Your task to perform on an android device: Search for the new Air Jordan 13 on Nike.com Image 0: 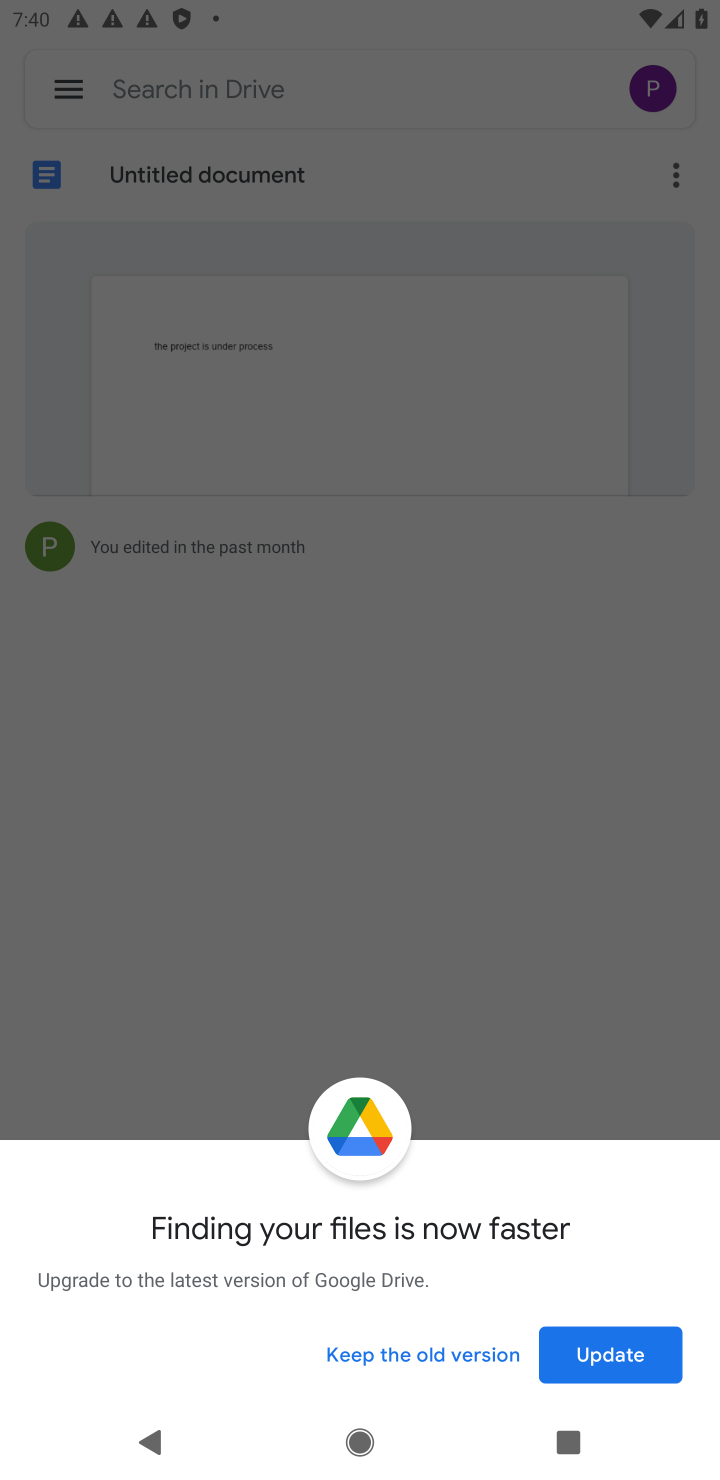
Step 0: press home button
Your task to perform on an android device: Search for the new Air Jordan 13 on Nike.com Image 1: 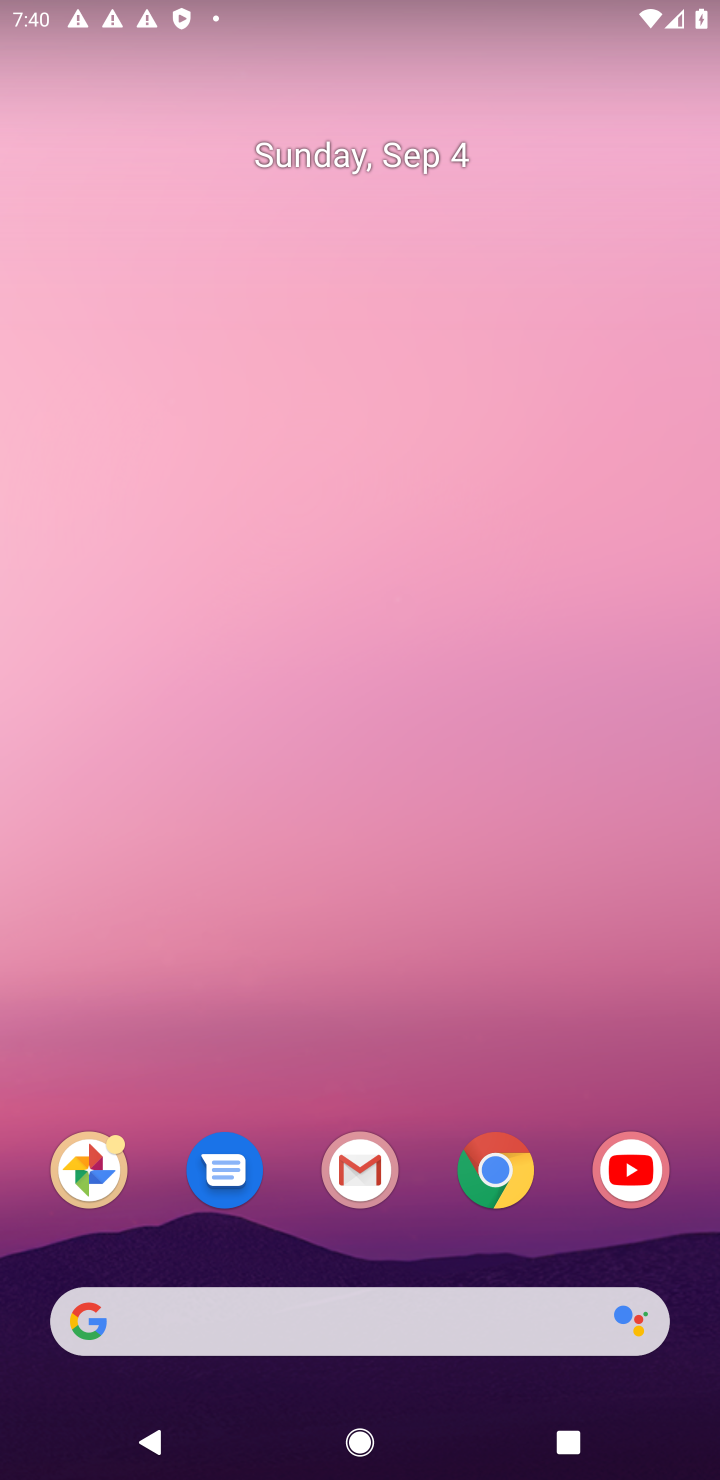
Step 1: click (499, 1156)
Your task to perform on an android device: Search for the new Air Jordan 13 on Nike.com Image 2: 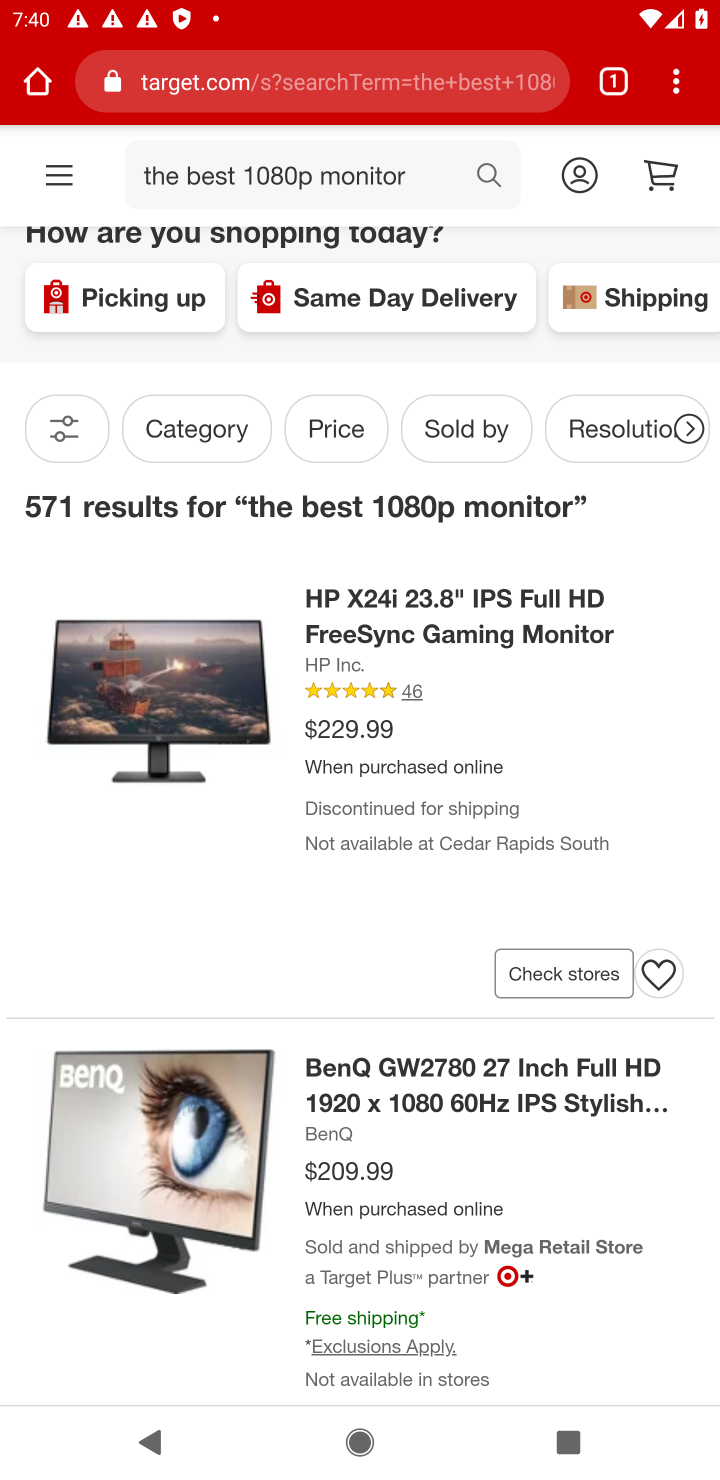
Step 2: click (308, 81)
Your task to perform on an android device: Search for the new Air Jordan 13 on Nike.com Image 3: 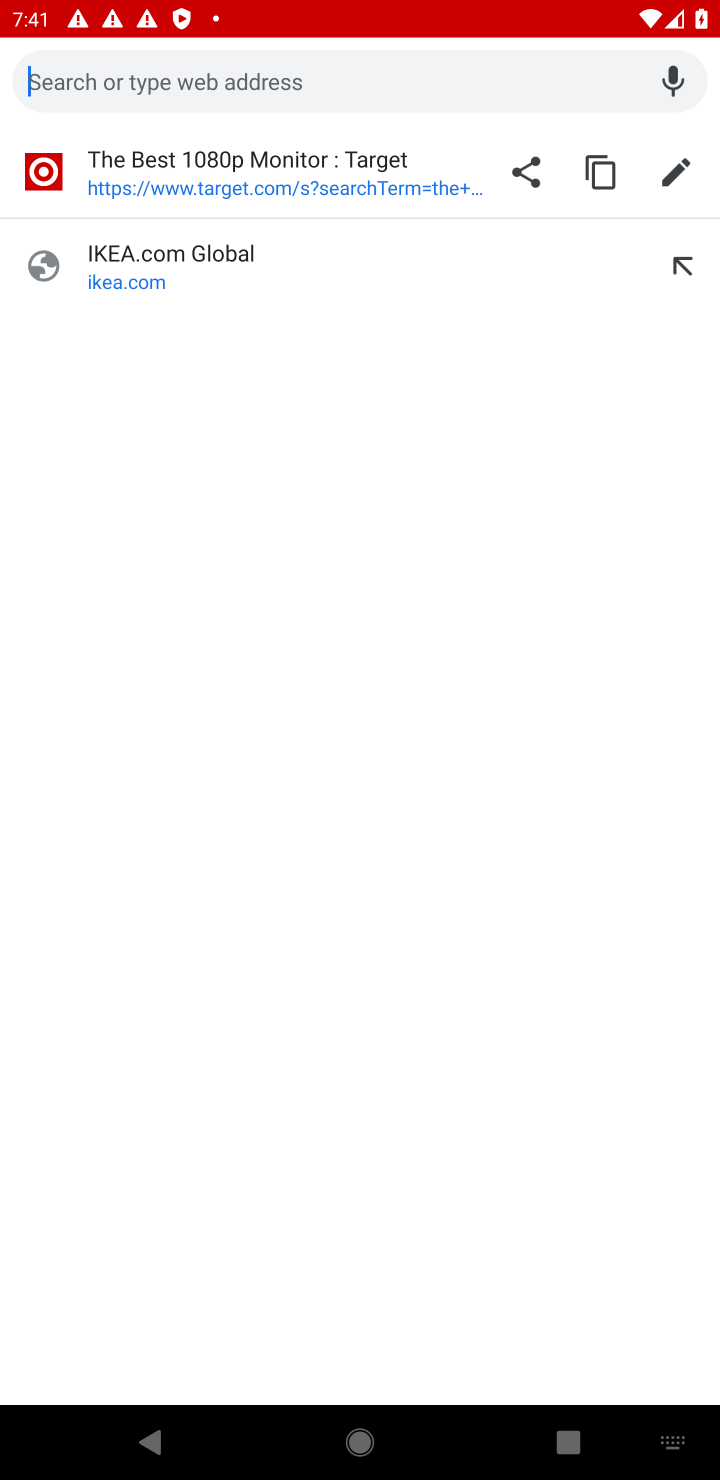
Step 3: type "Nike.com"
Your task to perform on an android device: Search for the new Air Jordan 13 on Nike.com Image 4: 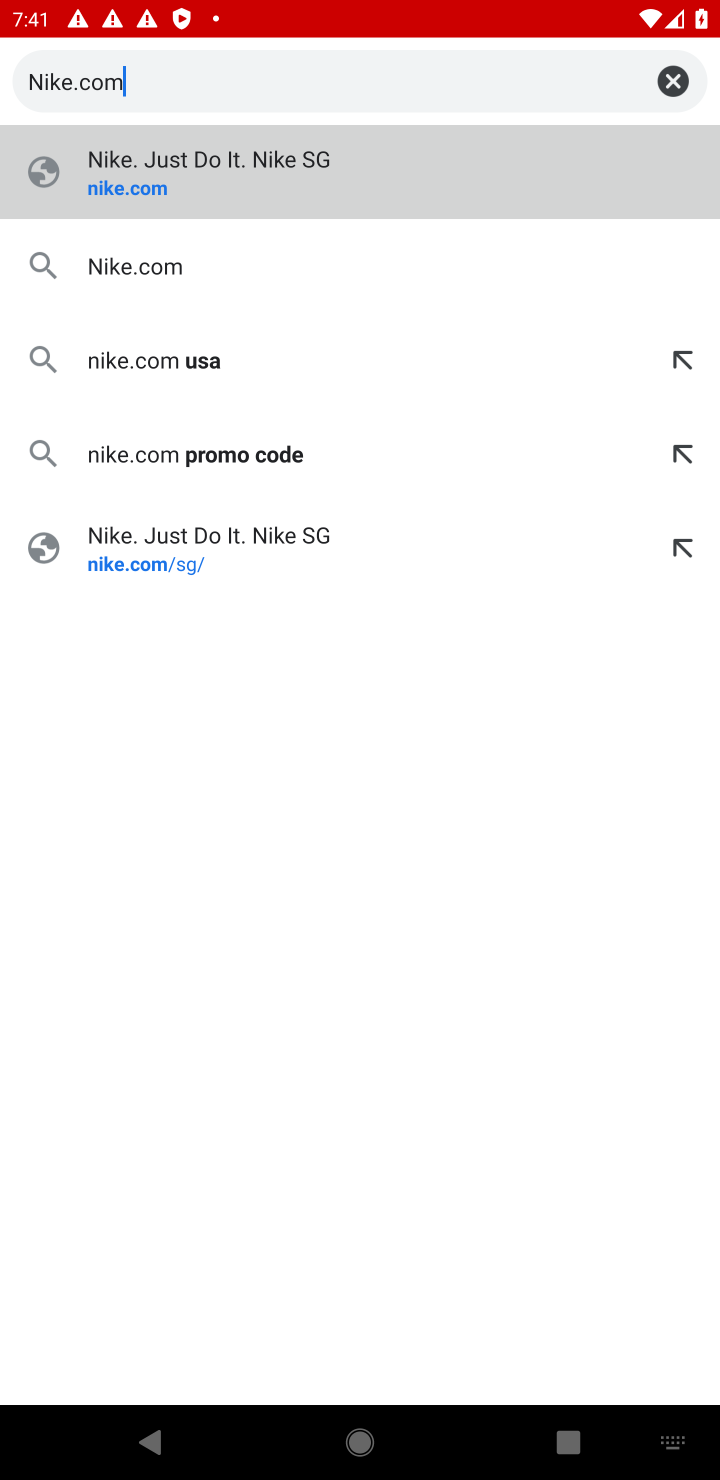
Step 4: click (140, 269)
Your task to perform on an android device: Search for the new Air Jordan 13 on Nike.com Image 5: 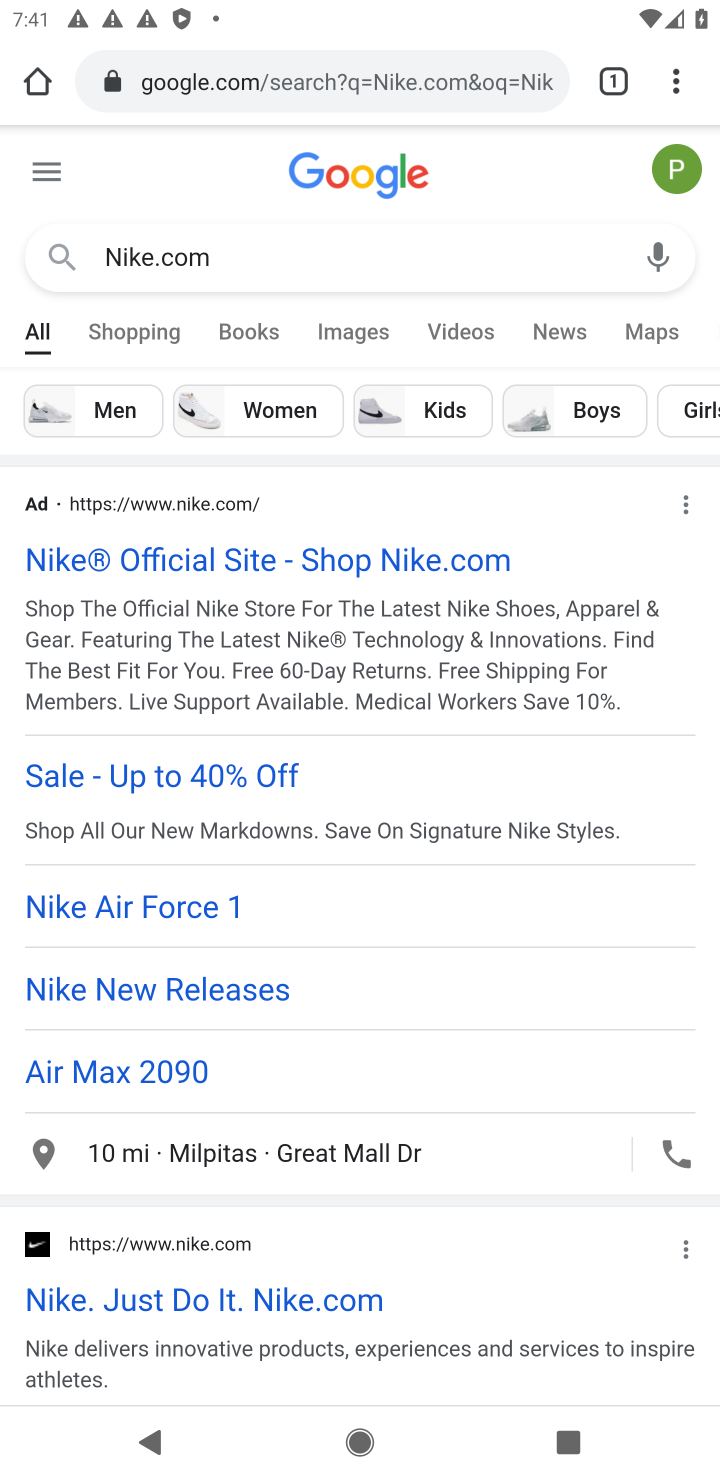
Step 5: click (193, 548)
Your task to perform on an android device: Search for the new Air Jordan 13 on Nike.com Image 6: 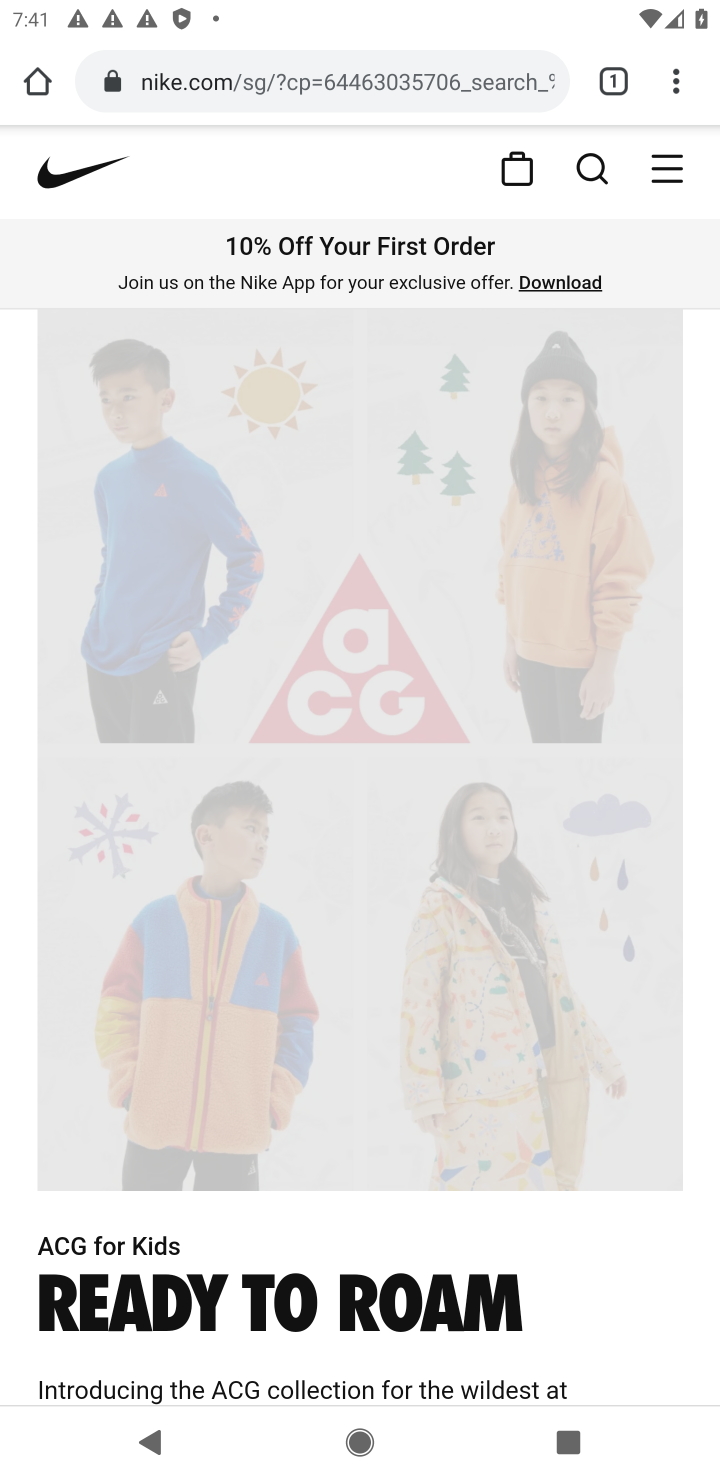
Step 6: click (582, 168)
Your task to perform on an android device: Search for the new Air Jordan 13 on Nike.com Image 7: 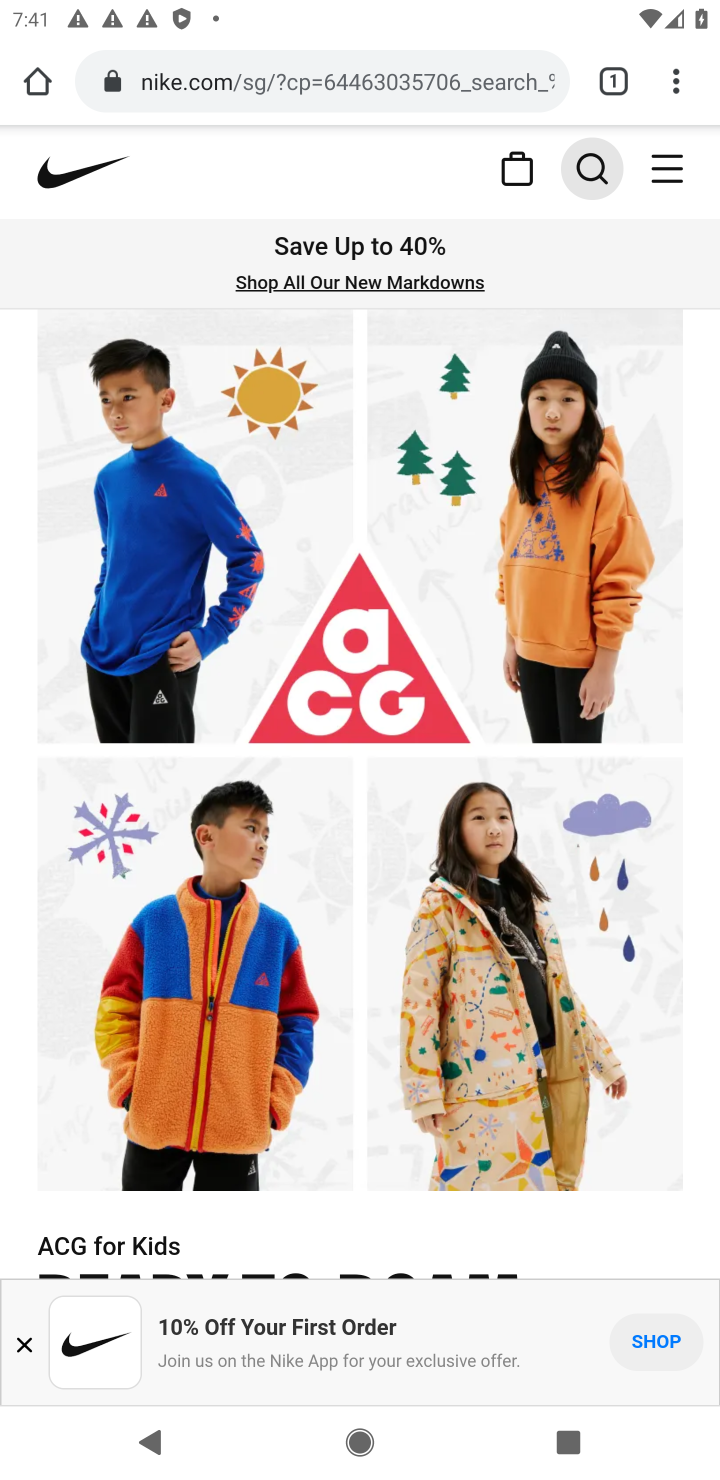
Step 7: click (590, 167)
Your task to perform on an android device: Search for the new Air Jordan 13 on Nike.com Image 8: 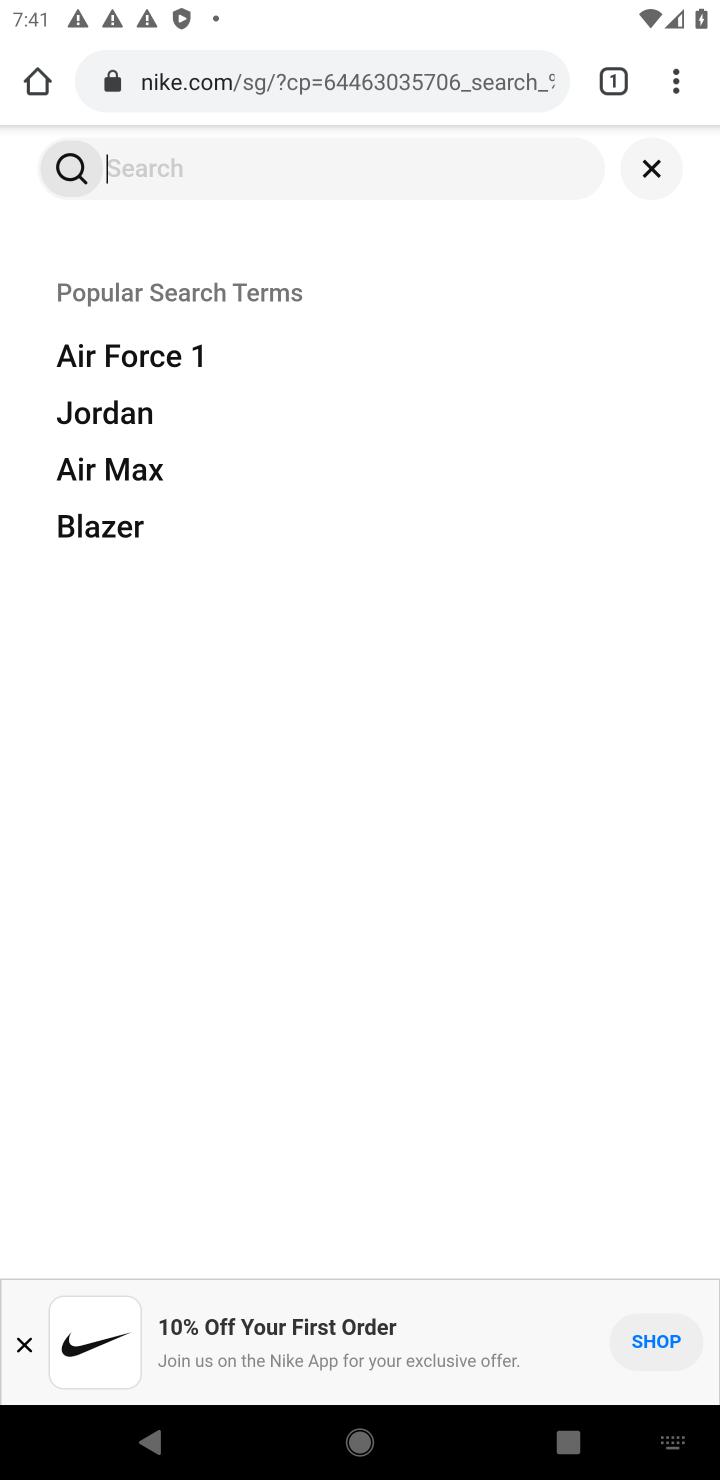
Step 8: type "the new Air Jordan 13"
Your task to perform on an android device: Search for the new Air Jordan 13 on Nike.com Image 9: 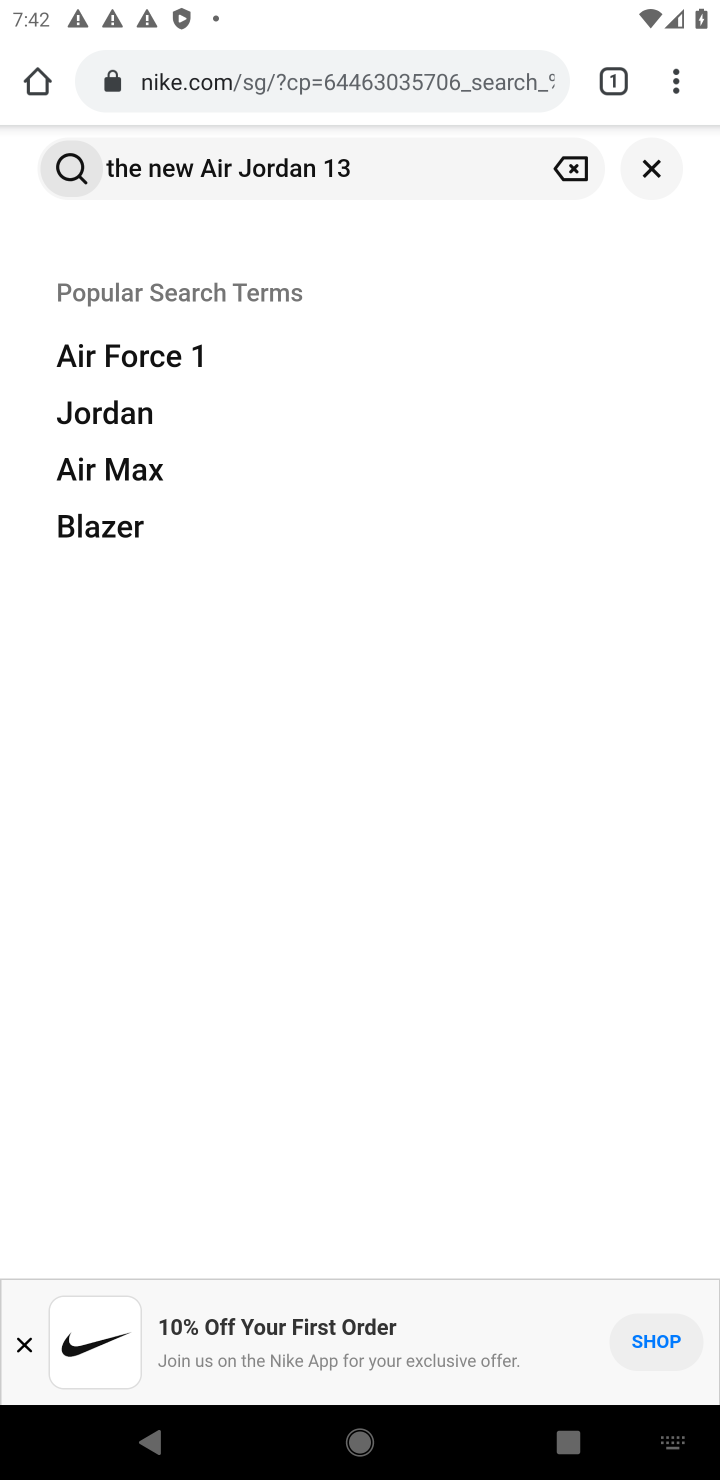
Step 9: click (72, 163)
Your task to perform on an android device: Search for the new Air Jordan 13 on Nike.com Image 10: 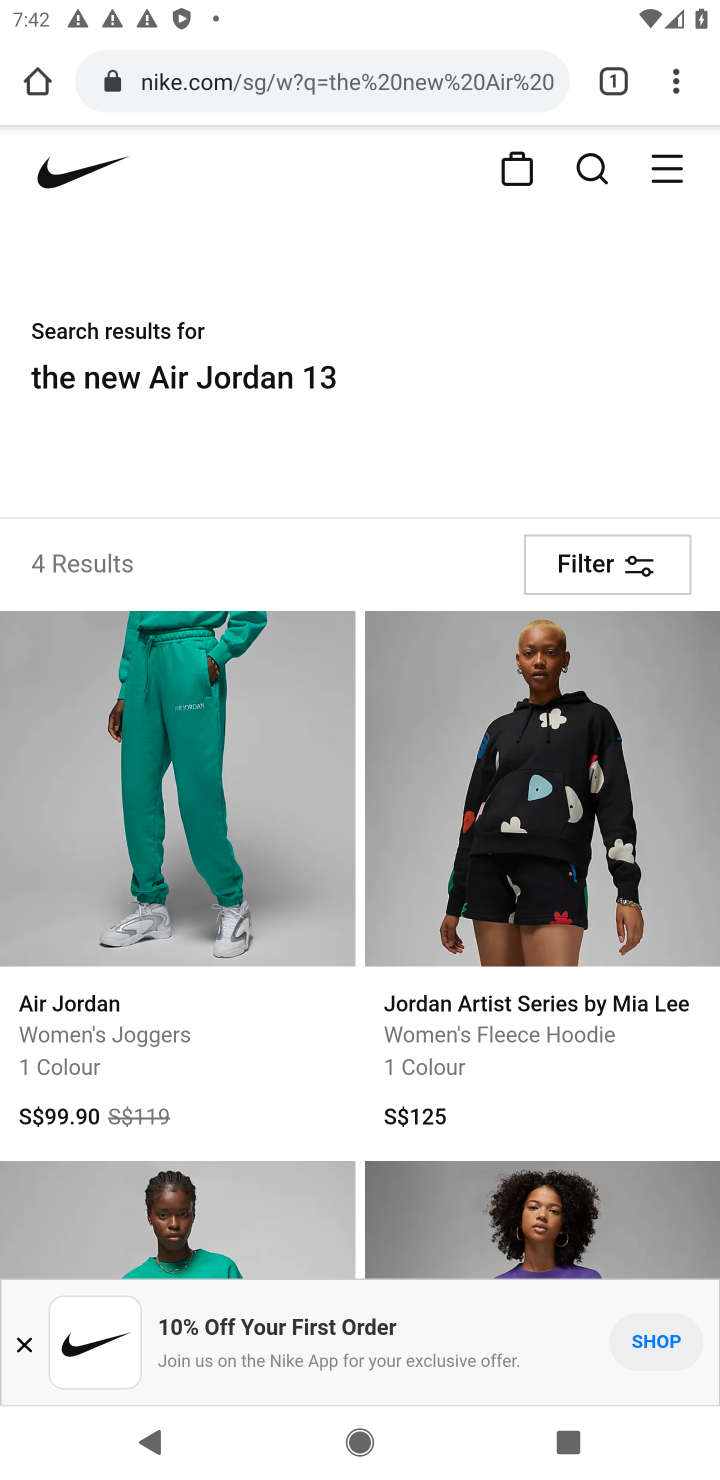
Step 10: task complete